Your task to perform on an android device: delete location history Image 0: 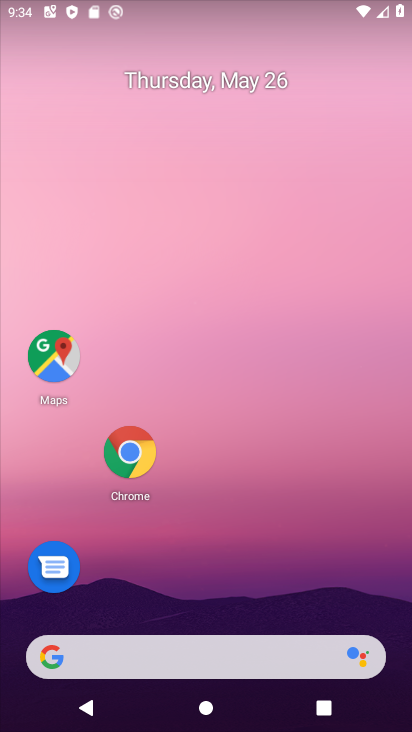
Step 0: press home button
Your task to perform on an android device: delete location history Image 1: 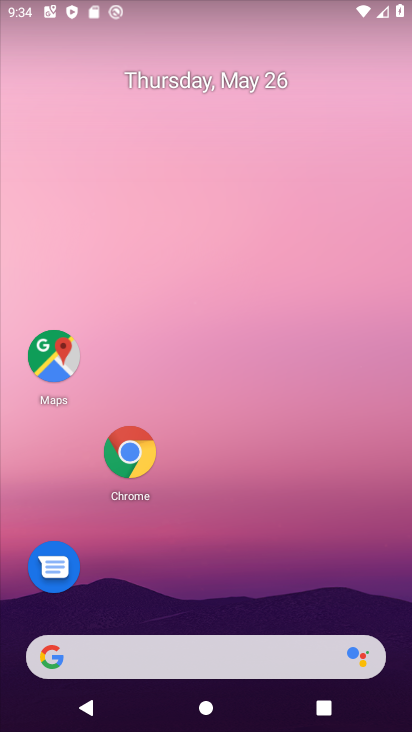
Step 1: click (44, 363)
Your task to perform on an android device: delete location history Image 2: 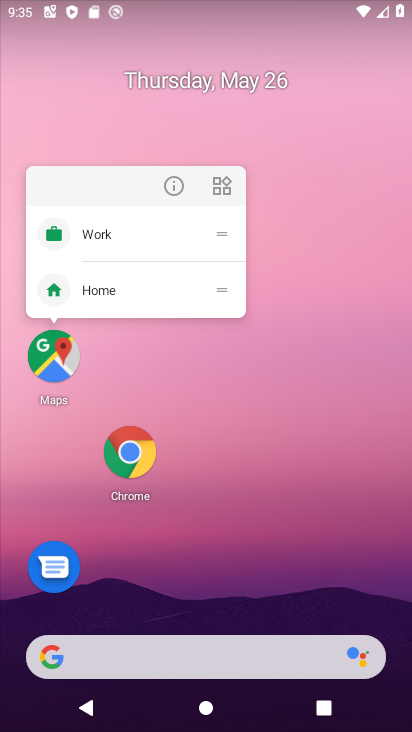
Step 2: click (52, 361)
Your task to perform on an android device: delete location history Image 3: 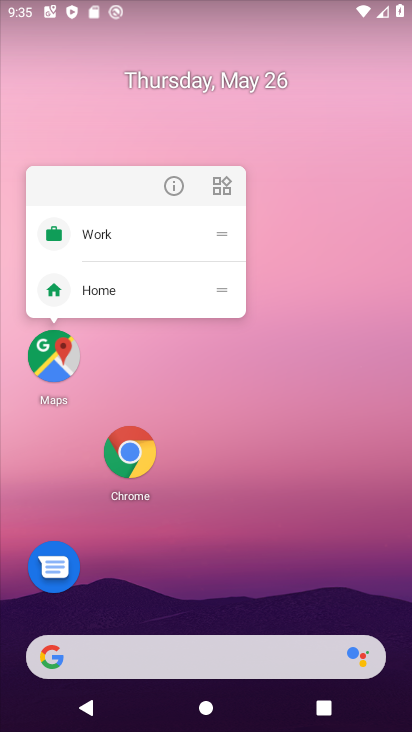
Step 3: click (52, 361)
Your task to perform on an android device: delete location history Image 4: 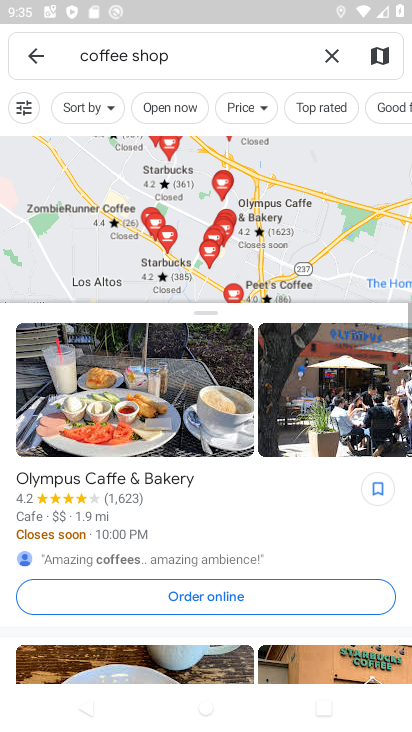
Step 4: click (29, 45)
Your task to perform on an android device: delete location history Image 5: 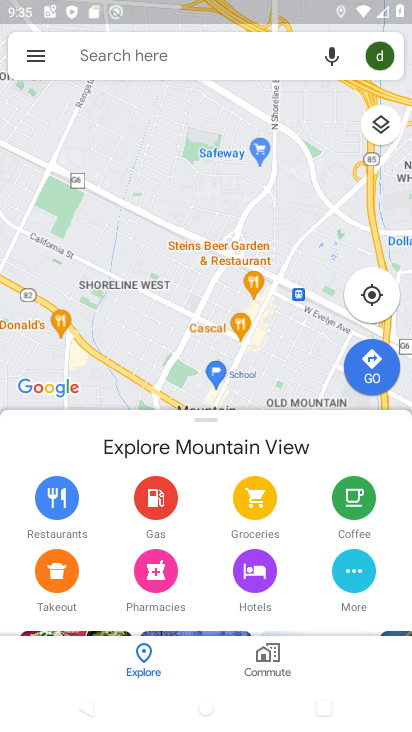
Step 5: click (37, 59)
Your task to perform on an android device: delete location history Image 6: 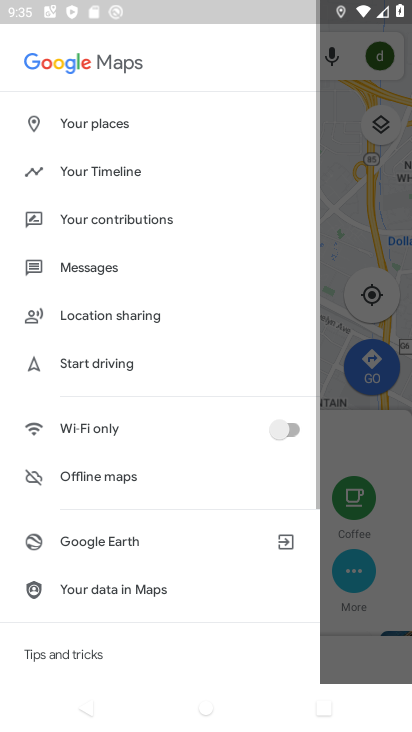
Step 6: click (130, 172)
Your task to perform on an android device: delete location history Image 7: 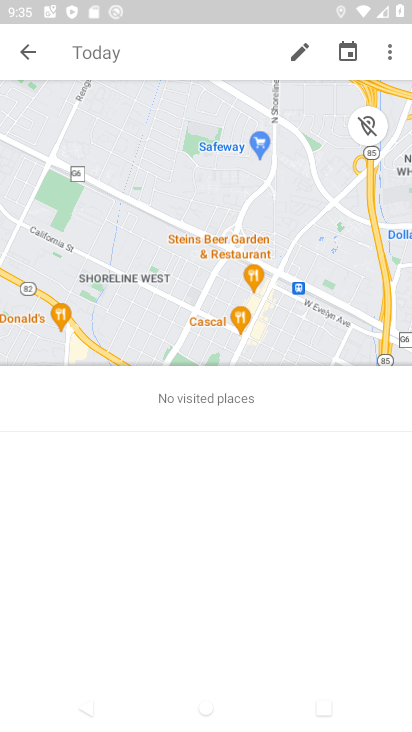
Step 7: click (389, 55)
Your task to perform on an android device: delete location history Image 8: 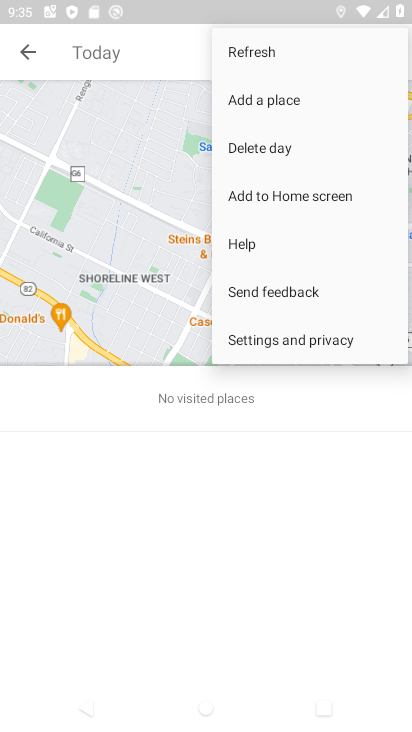
Step 8: click (263, 346)
Your task to perform on an android device: delete location history Image 9: 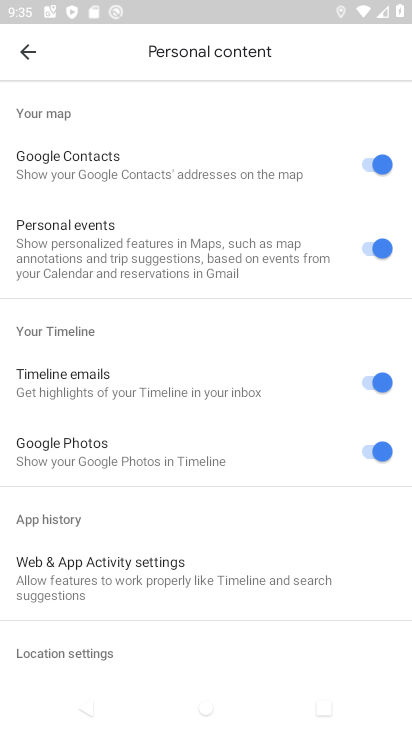
Step 9: drag from (248, 381) to (346, 197)
Your task to perform on an android device: delete location history Image 10: 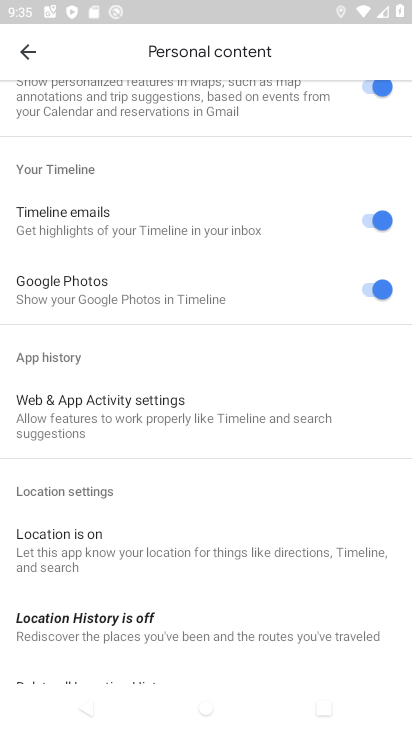
Step 10: drag from (160, 528) to (289, 281)
Your task to perform on an android device: delete location history Image 11: 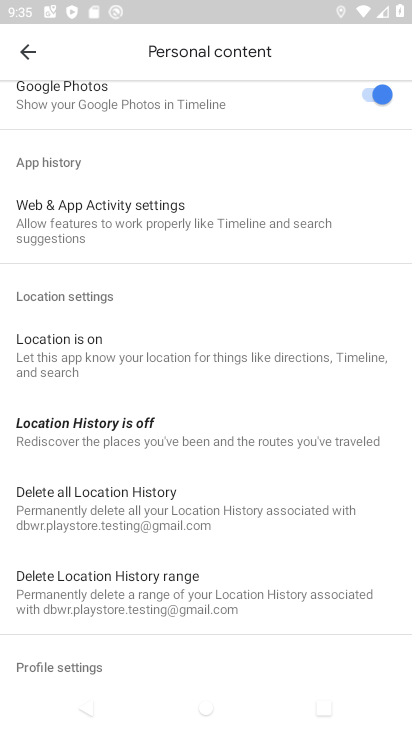
Step 11: click (157, 511)
Your task to perform on an android device: delete location history Image 12: 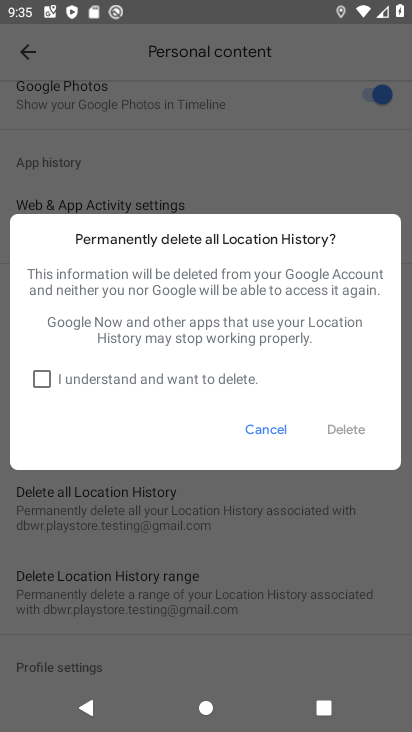
Step 12: click (39, 376)
Your task to perform on an android device: delete location history Image 13: 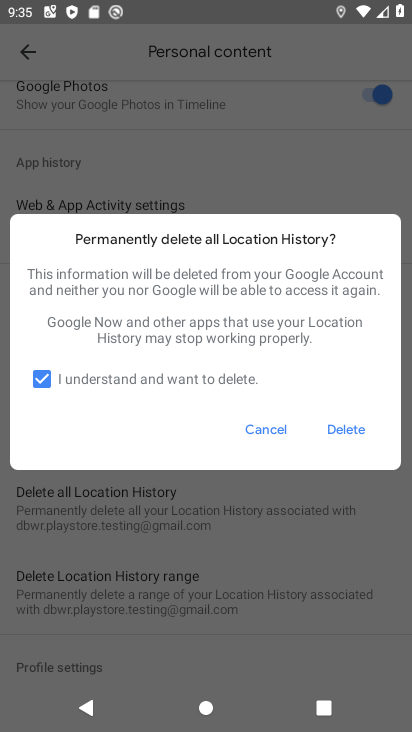
Step 13: click (359, 431)
Your task to perform on an android device: delete location history Image 14: 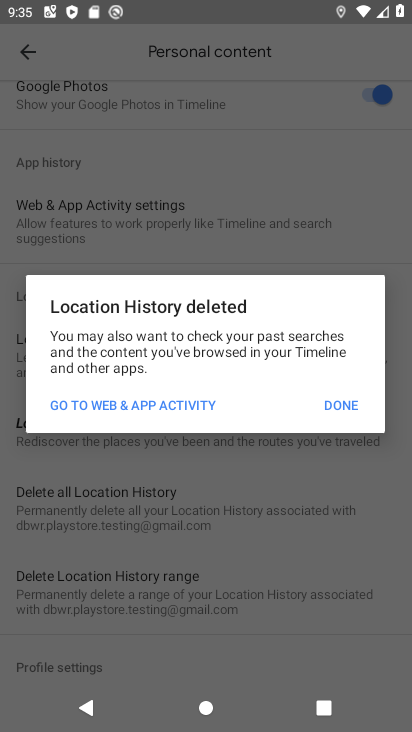
Step 14: click (343, 408)
Your task to perform on an android device: delete location history Image 15: 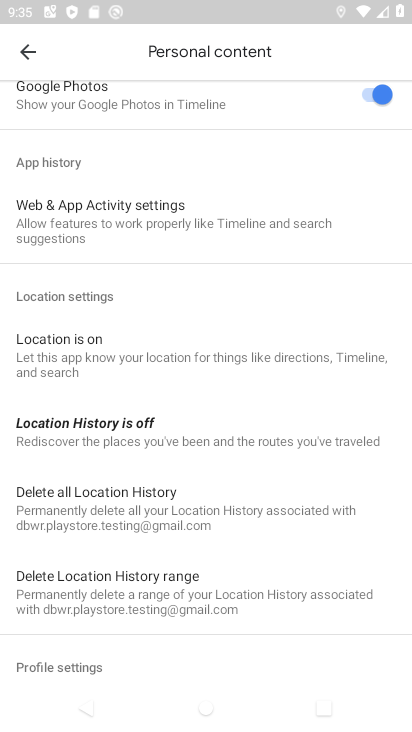
Step 15: task complete